Your task to perform on an android device: turn vacation reply on in the gmail app Image 0: 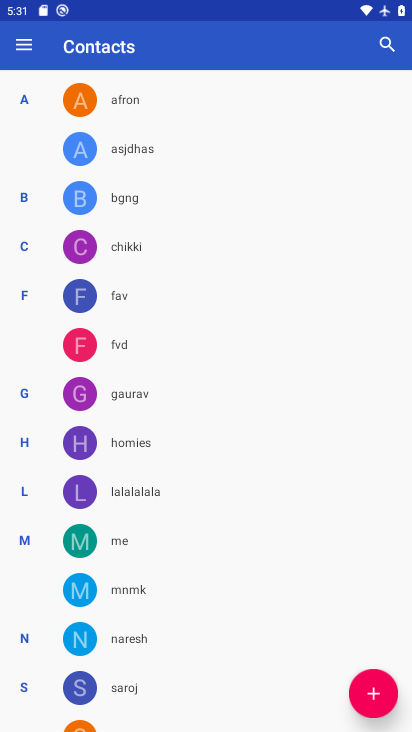
Step 0: press home button
Your task to perform on an android device: turn vacation reply on in the gmail app Image 1: 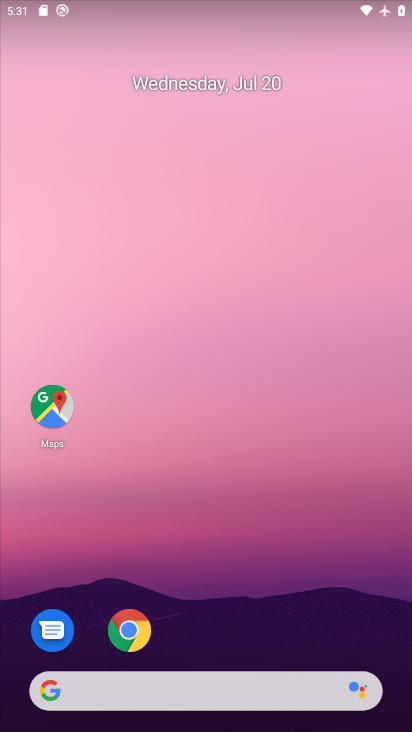
Step 1: drag from (257, 560) to (284, 1)
Your task to perform on an android device: turn vacation reply on in the gmail app Image 2: 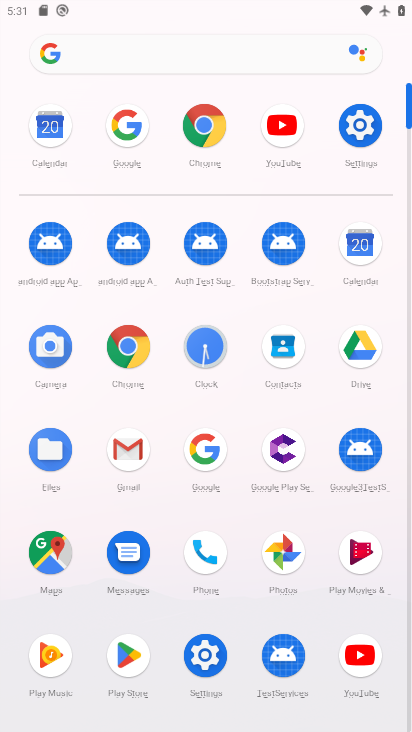
Step 2: click (136, 455)
Your task to perform on an android device: turn vacation reply on in the gmail app Image 3: 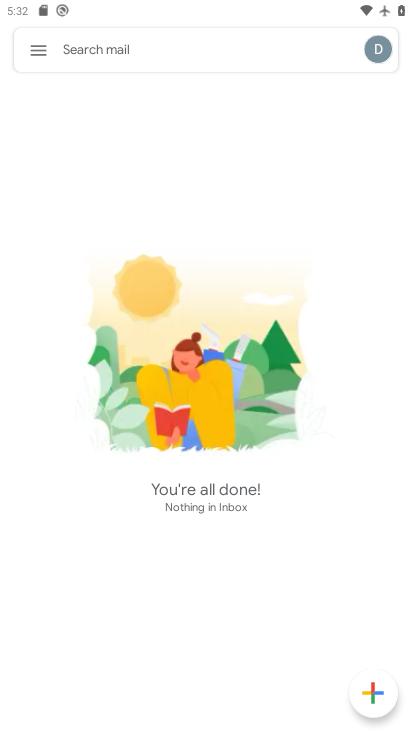
Step 3: click (46, 46)
Your task to perform on an android device: turn vacation reply on in the gmail app Image 4: 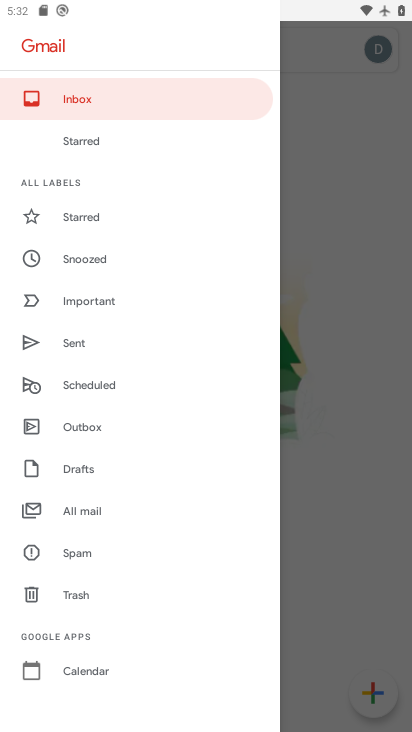
Step 4: drag from (194, 596) to (140, 180)
Your task to perform on an android device: turn vacation reply on in the gmail app Image 5: 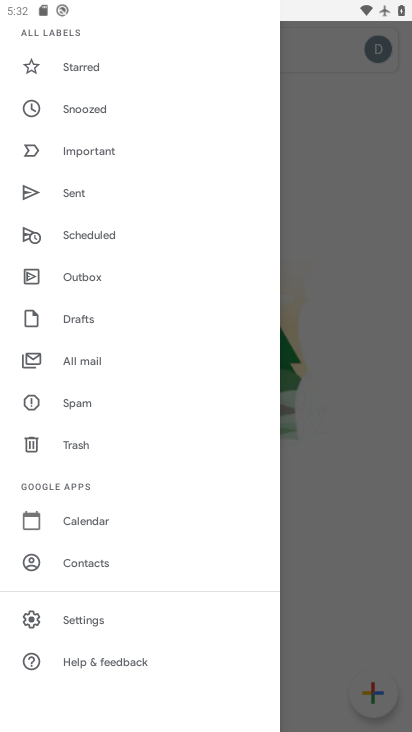
Step 5: click (85, 626)
Your task to perform on an android device: turn vacation reply on in the gmail app Image 6: 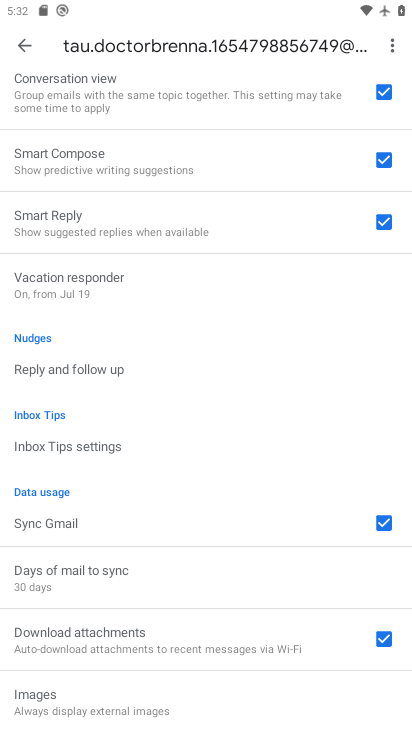
Step 6: drag from (210, 594) to (214, 260)
Your task to perform on an android device: turn vacation reply on in the gmail app Image 7: 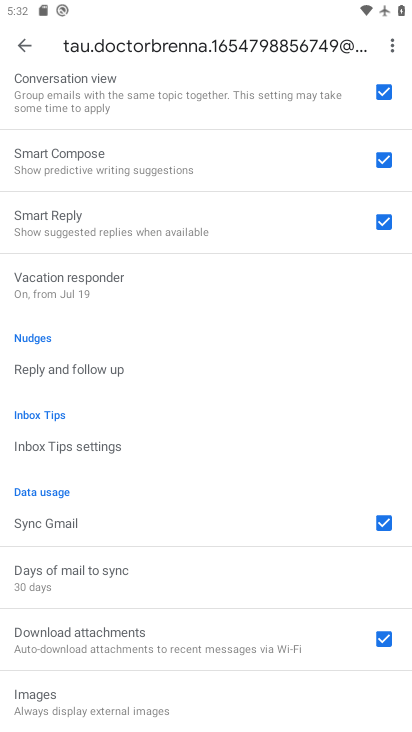
Step 7: click (41, 279)
Your task to perform on an android device: turn vacation reply on in the gmail app Image 8: 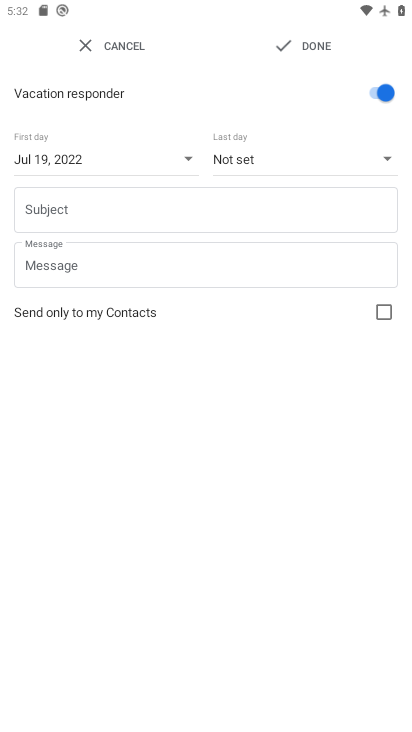
Step 8: task complete